Your task to perform on an android device: install app "Yahoo Mail" Image 0: 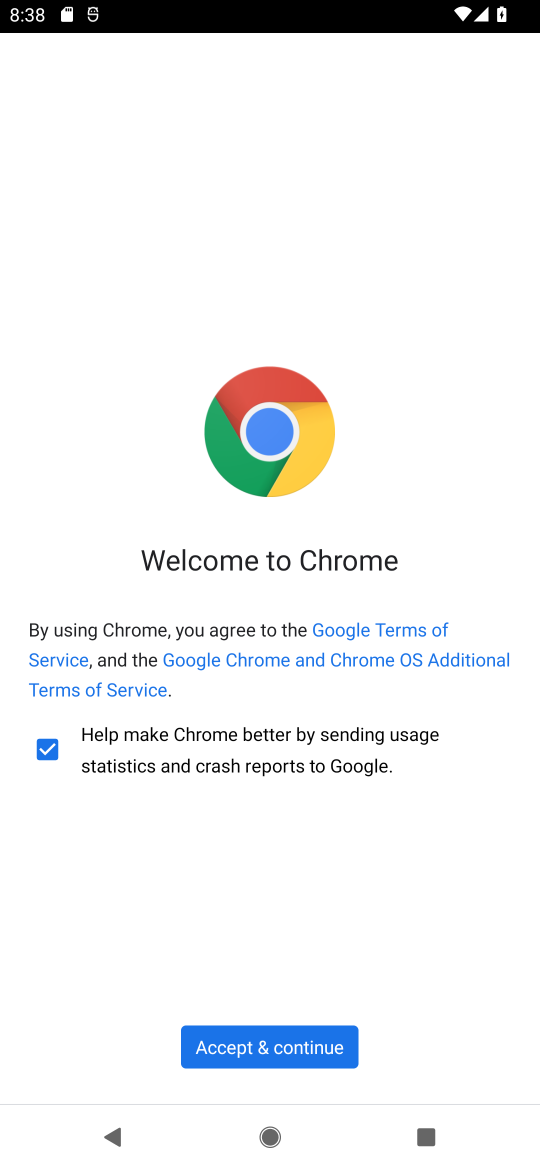
Step 0: press home button
Your task to perform on an android device: install app "Yahoo Mail" Image 1: 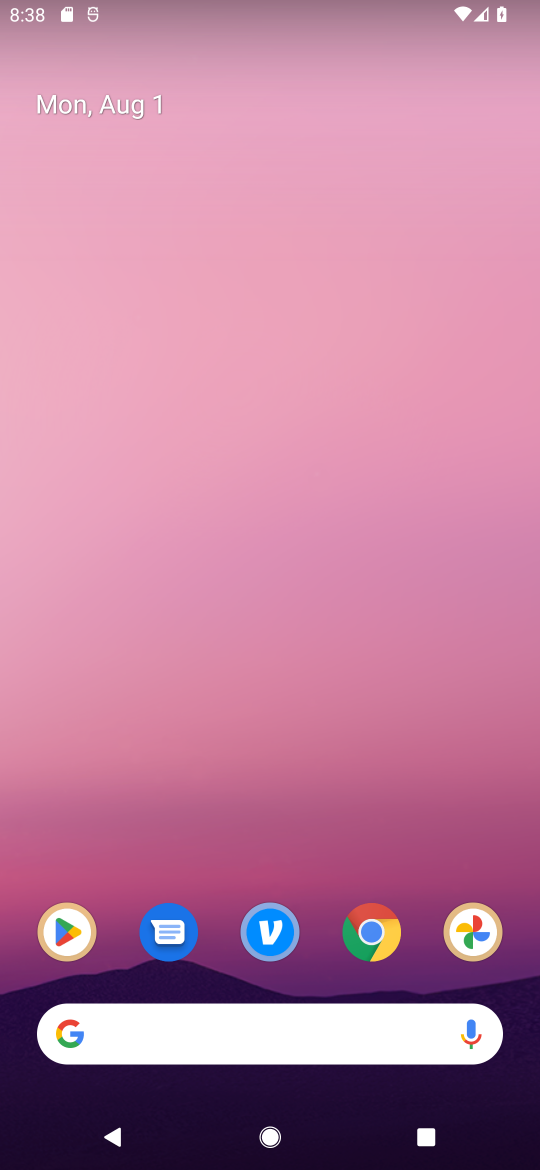
Step 1: click (69, 913)
Your task to perform on an android device: install app "Yahoo Mail" Image 2: 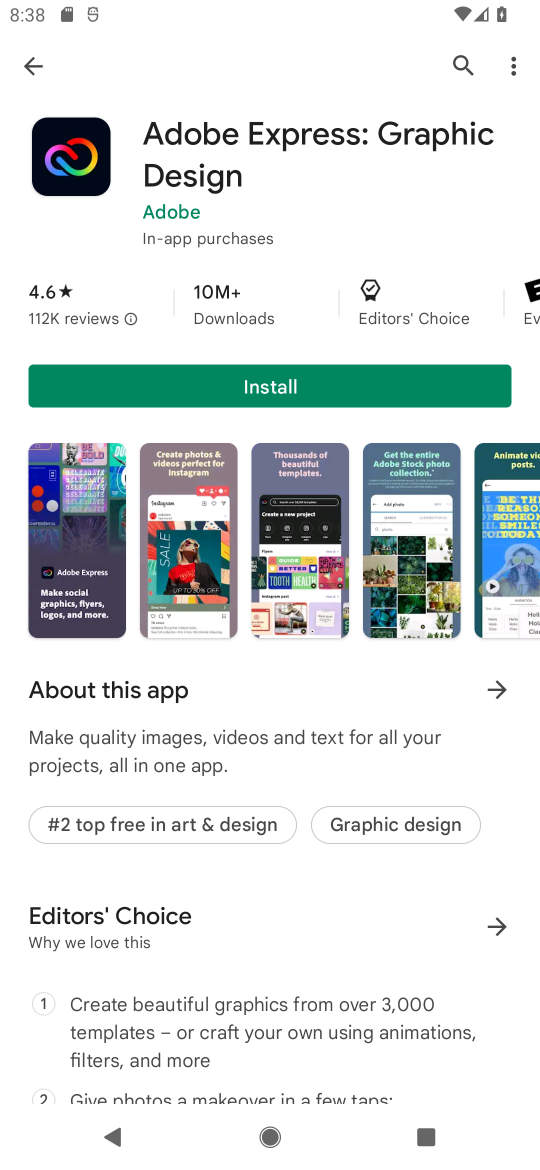
Step 2: click (452, 54)
Your task to perform on an android device: install app "Yahoo Mail" Image 3: 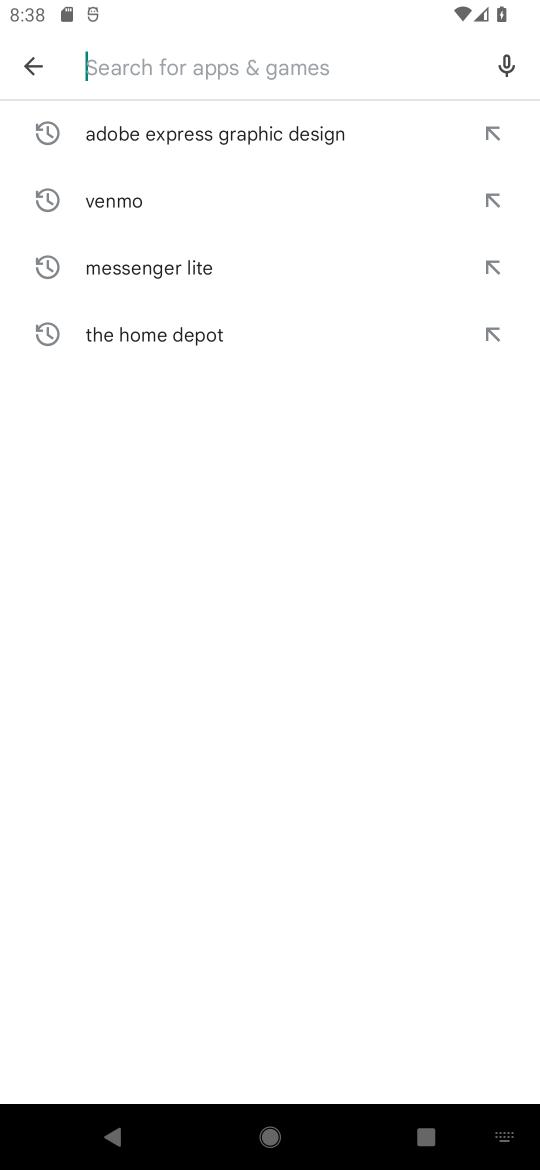
Step 3: type "yahoo mail"
Your task to perform on an android device: install app "Yahoo Mail" Image 4: 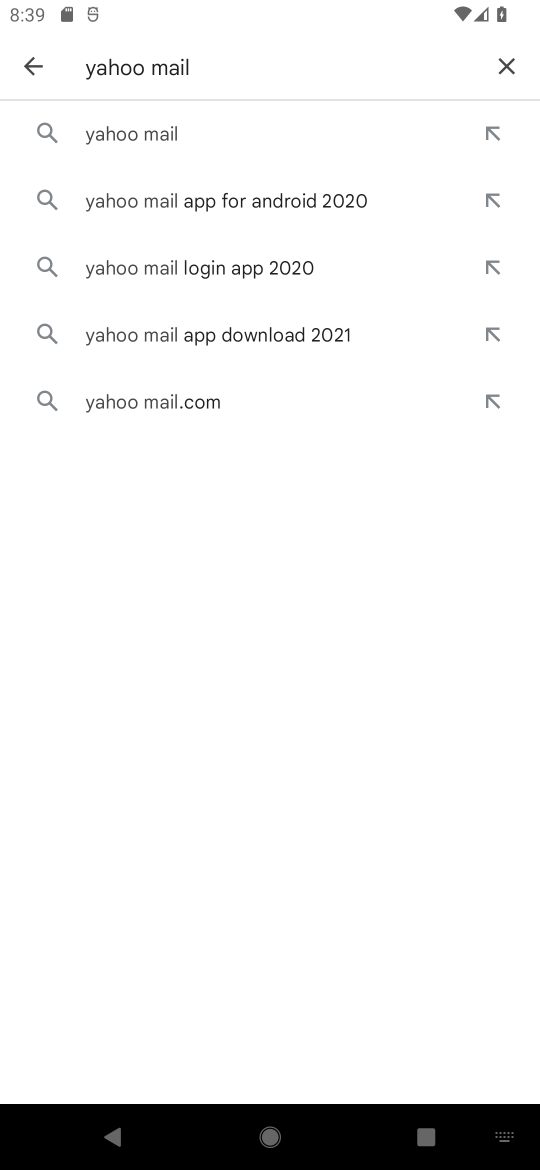
Step 4: click (221, 135)
Your task to perform on an android device: install app "Yahoo Mail" Image 5: 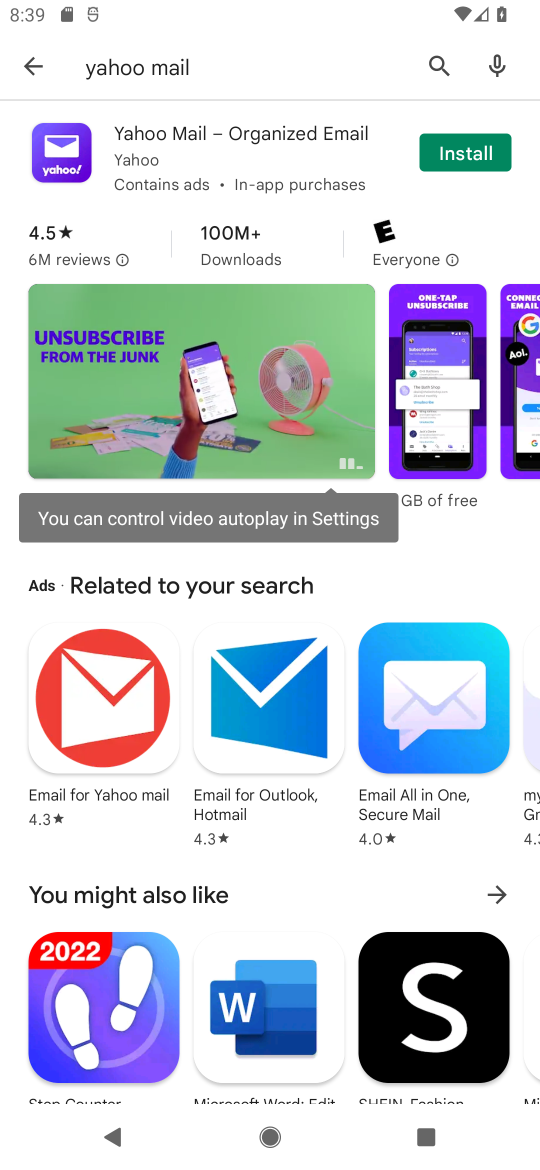
Step 5: click (238, 132)
Your task to perform on an android device: install app "Yahoo Mail" Image 6: 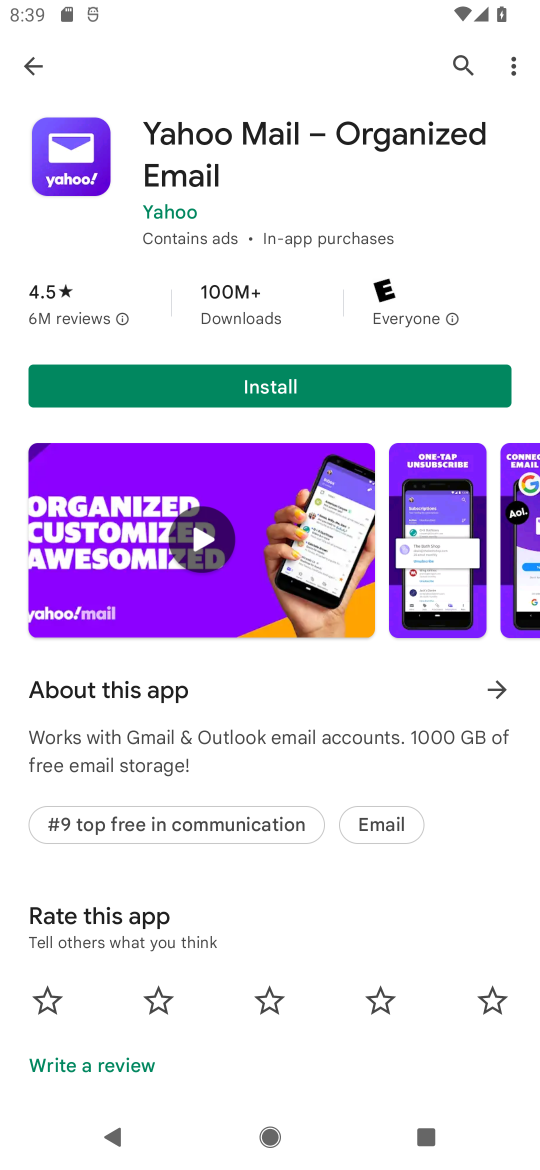
Step 6: click (154, 382)
Your task to perform on an android device: install app "Yahoo Mail" Image 7: 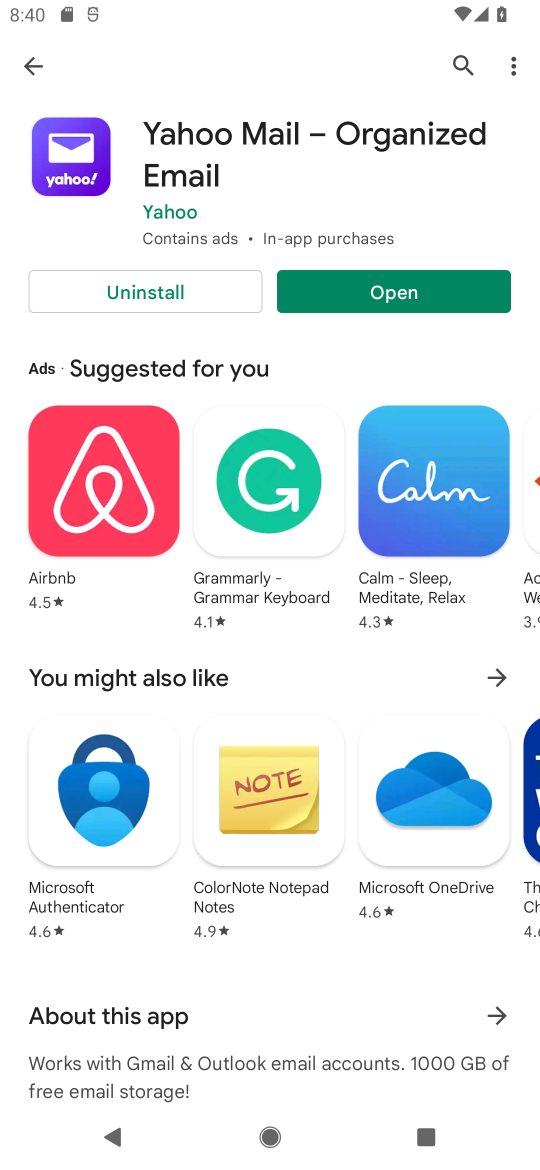
Step 7: task complete